Your task to perform on an android device: Go to Maps Image 0: 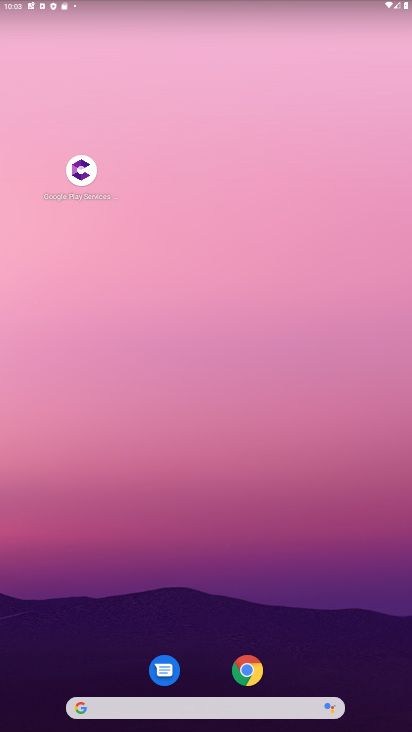
Step 0: drag from (227, 534) to (237, 341)
Your task to perform on an android device: Go to Maps Image 1: 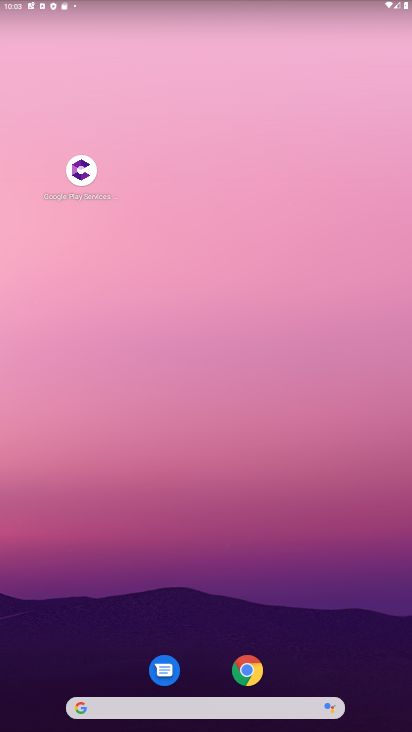
Step 1: drag from (155, 709) to (94, 382)
Your task to perform on an android device: Go to Maps Image 2: 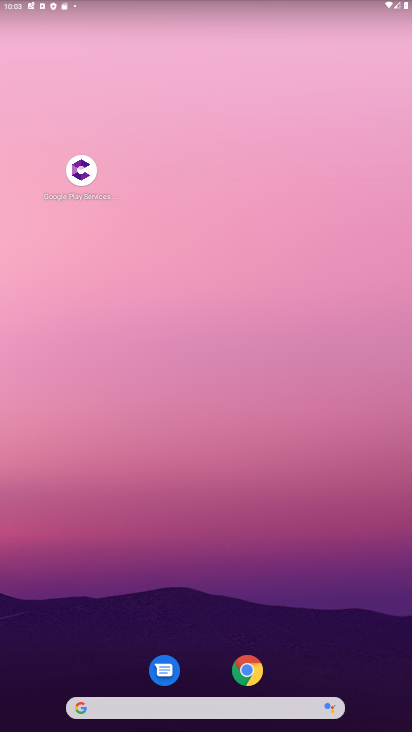
Step 2: drag from (289, 715) to (271, 23)
Your task to perform on an android device: Go to Maps Image 3: 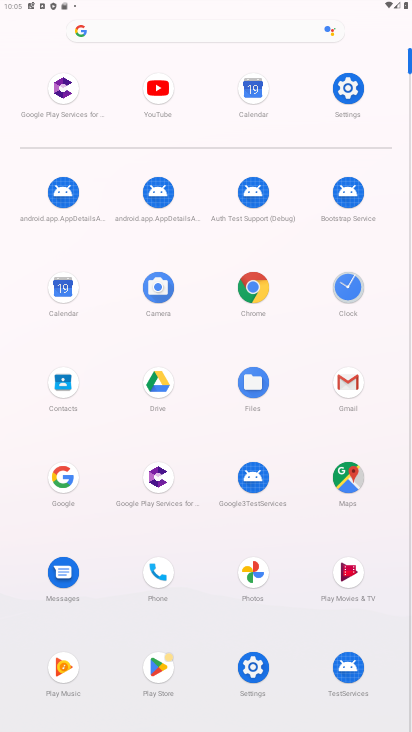
Step 3: click (353, 477)
Your task to perform on an android device: Go to Maps Image 4: 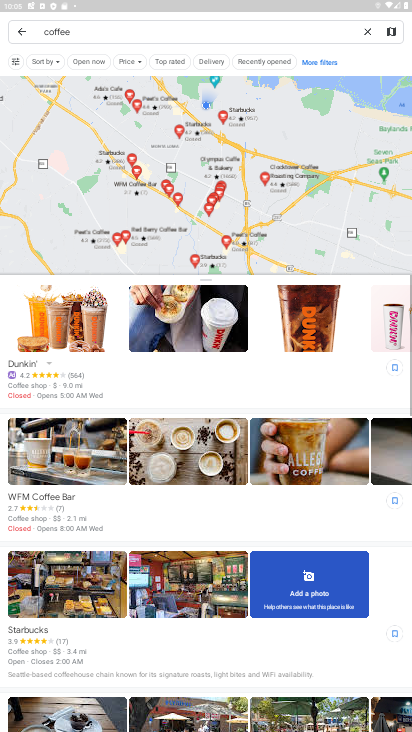
Step 4: task complete